Your task to perform on an android device: Open the Play Movies app and select the watchlist tab. Image 0: 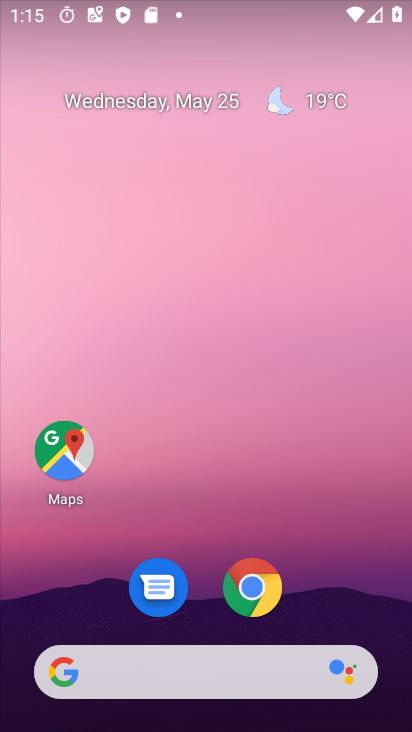
Step 0: drag from (211, 721) to (203, 102)
Your task to perform on an android device: Open the Play Movies app and select the watchlist tab. Image 1: 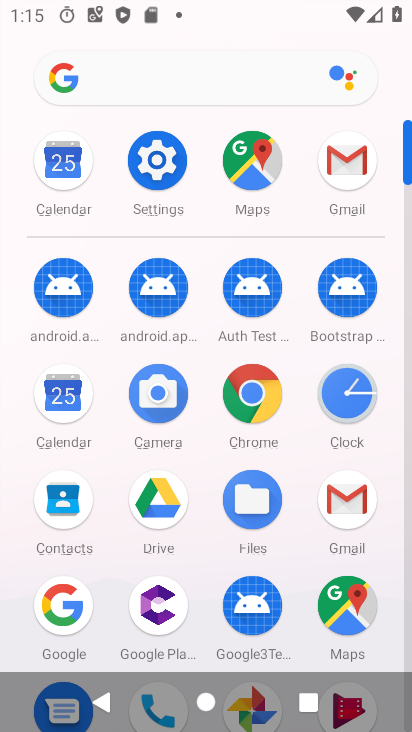
Step 1: drag from (307, 641) to (299, 336)
Your task to perform on an android device: Open the Play Movies app and select the watchlist tab. Image 2: 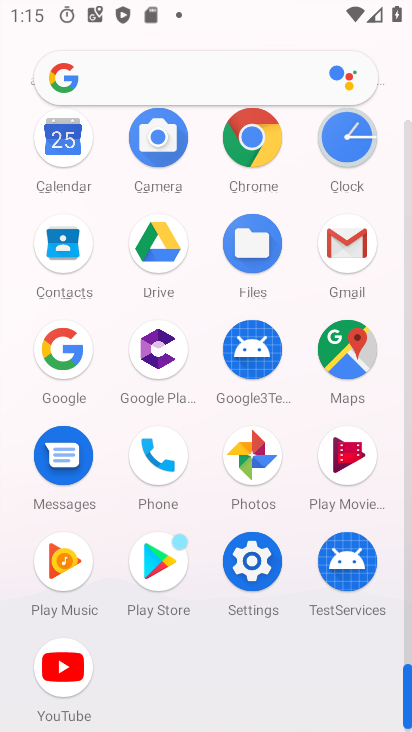
Step 2: click (336, 466)
Your task to perform on an android device: Open the Play Movies app and select the watchlist tab. Image 3: 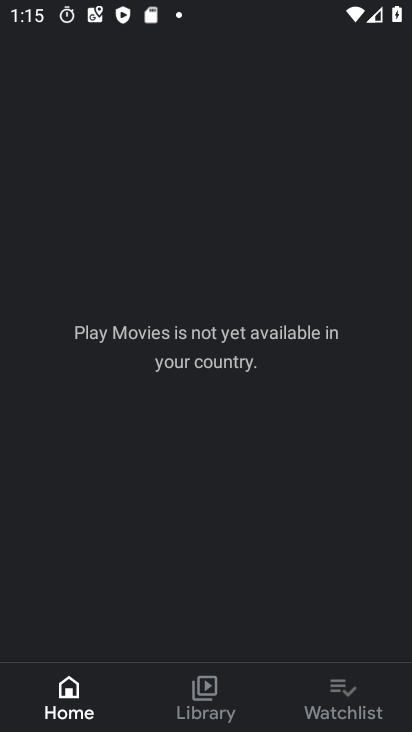
Step 3: click (331, 689)
Your task to perform on an android device: Open the Play Movies app and select the watchlist tab. Image 4: 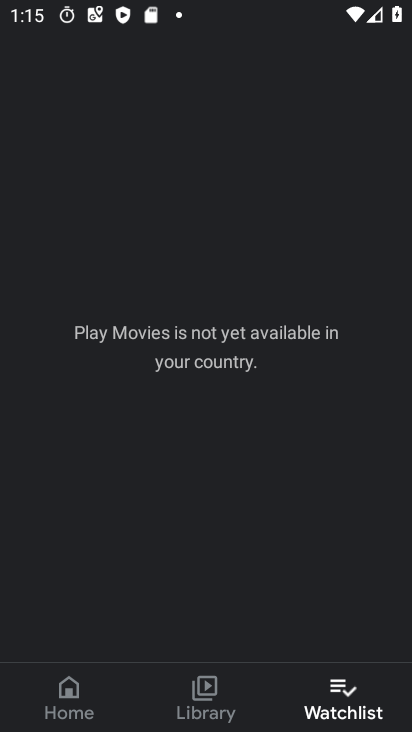
Step 4: task complete